Your task to perform on an android device: Search for flights from Buenos aires to Helsinki Image 0: 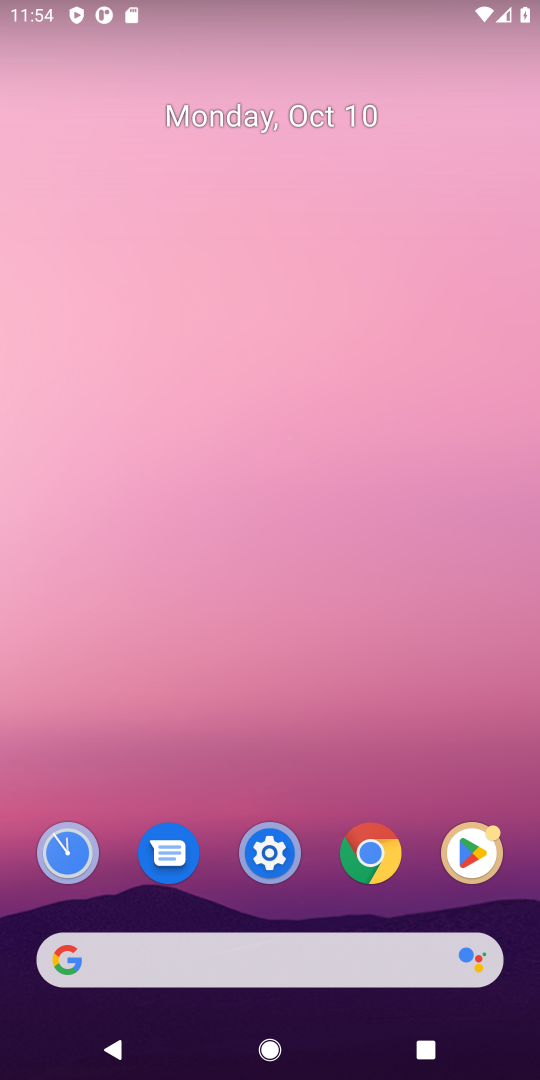
Step 0: click (362, 866)
Your task to perform on an android device: Search for flights from Buenos aires to Helsinki Image 1: 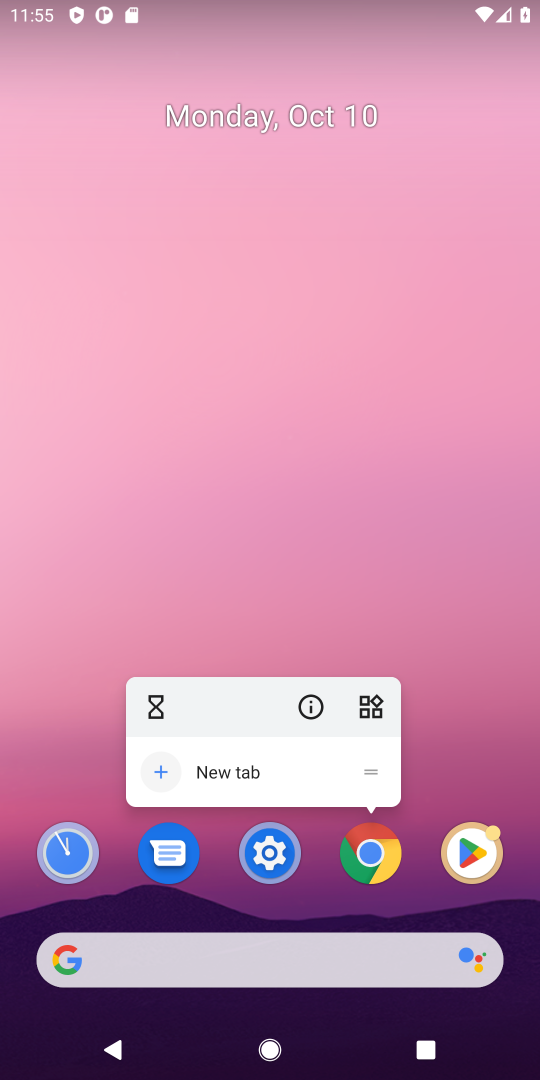
Step 1: click (355, 877)
Your task to perform on an android device: Search for flights from Buenos aires to Helsinki Image 2: 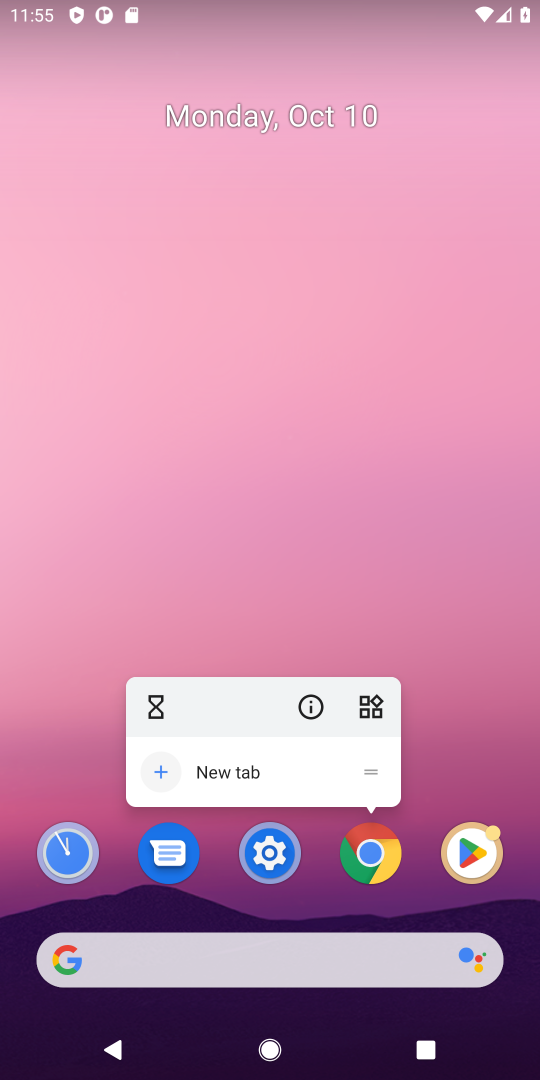
Step 2: click (417, 626)
Your task to perform on an android device: Search for flights from Buenos aires to Helsinki Image 3: 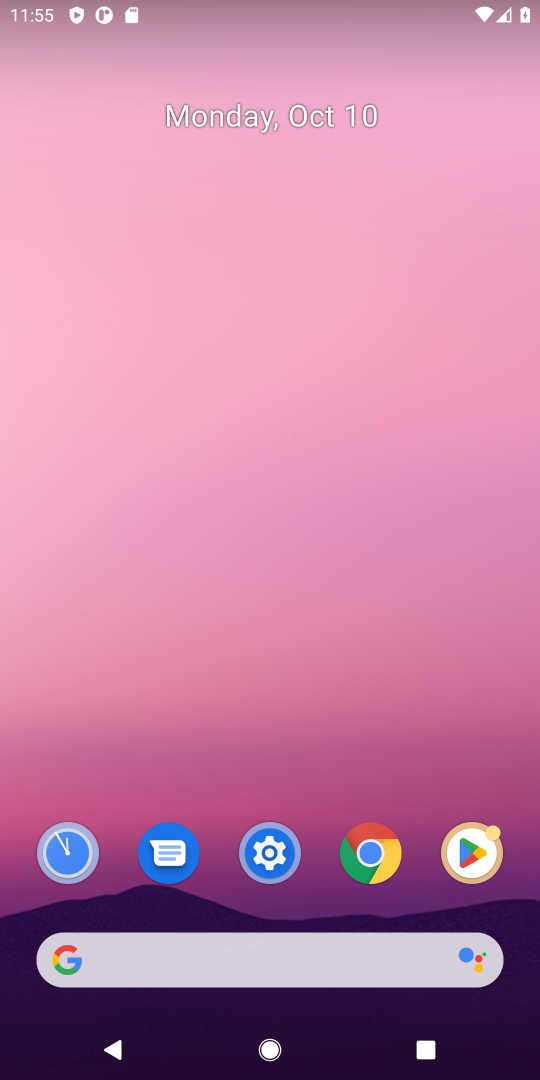
Step 3: click (382, 861)
Your task to perform on an android device: Search for flights from Buenos aires to Helsinki Image 4: 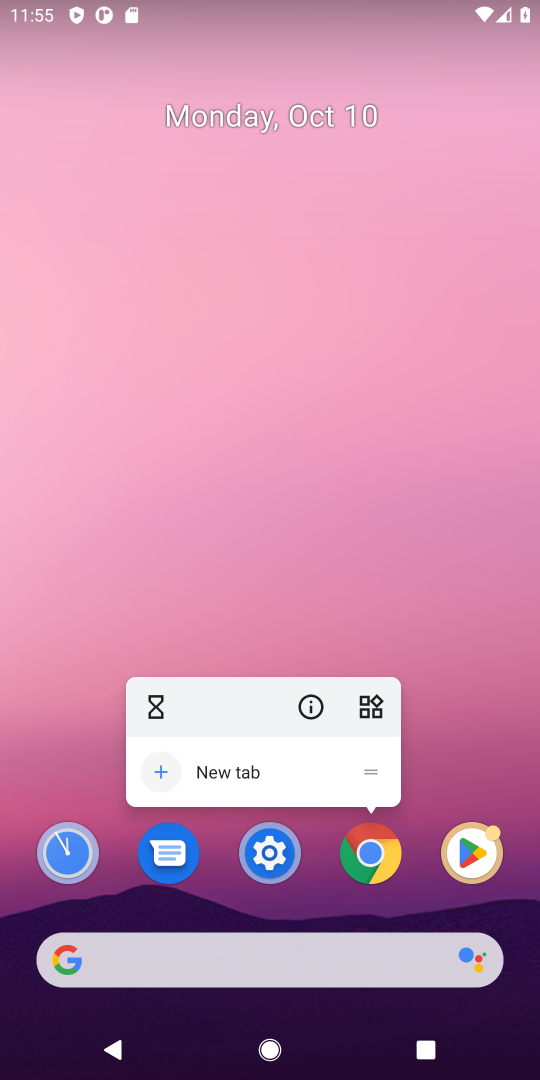
Step 4: drag from (205, 894) to (323, 13)
Your task to perform on an android device: Search for flights from Buenos aires to Helsinki Image 5: 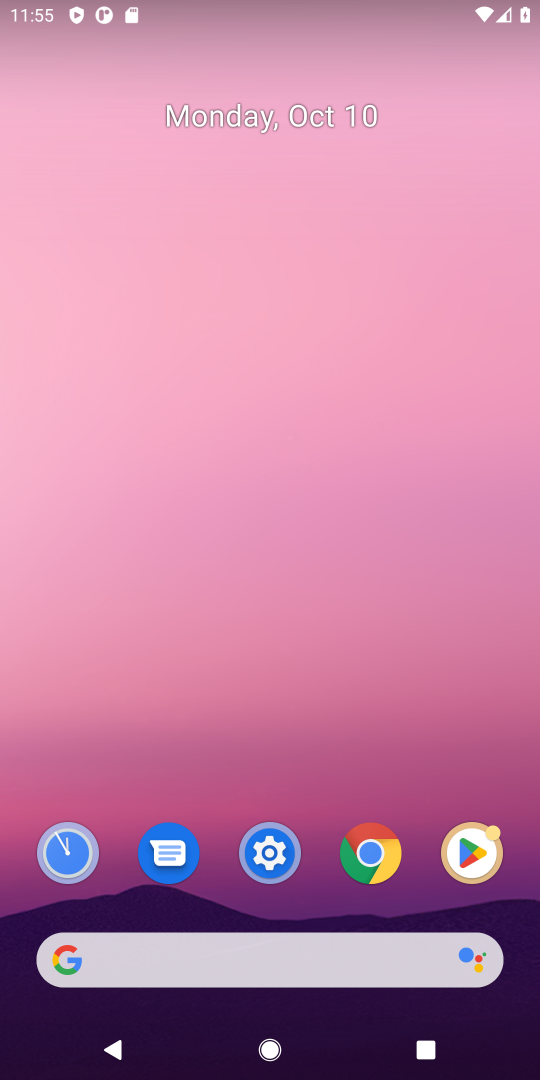
Step 5: drag from (265, 736) to (360, 83)
Your task to perform on an android device: Search for flights from Buenos aires to Helsinki Image 6: 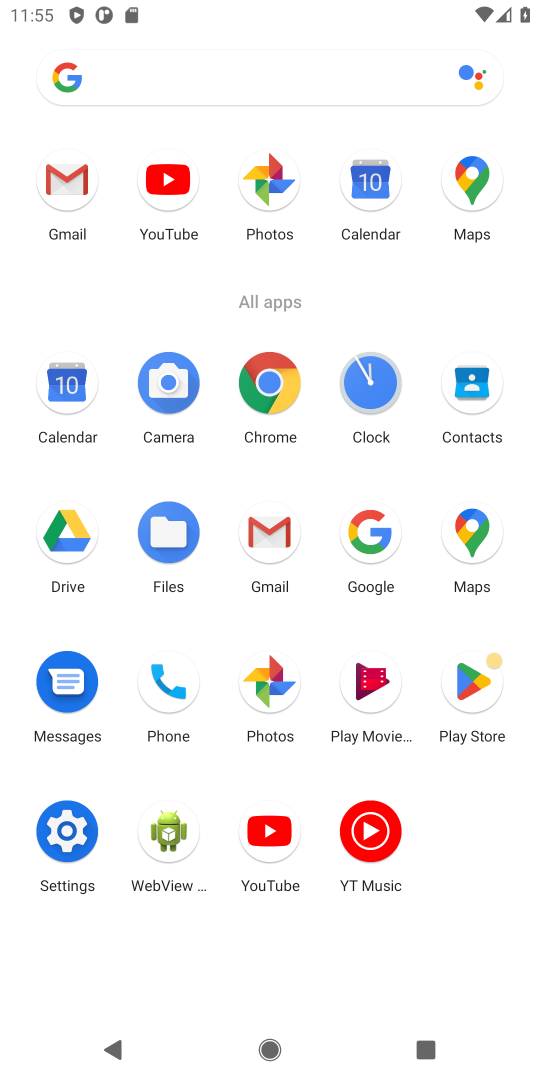
Step 6: click (266, 396)
Your task to perform on an android device: Search for flights from Buenos aires to Helsinki Image 7: 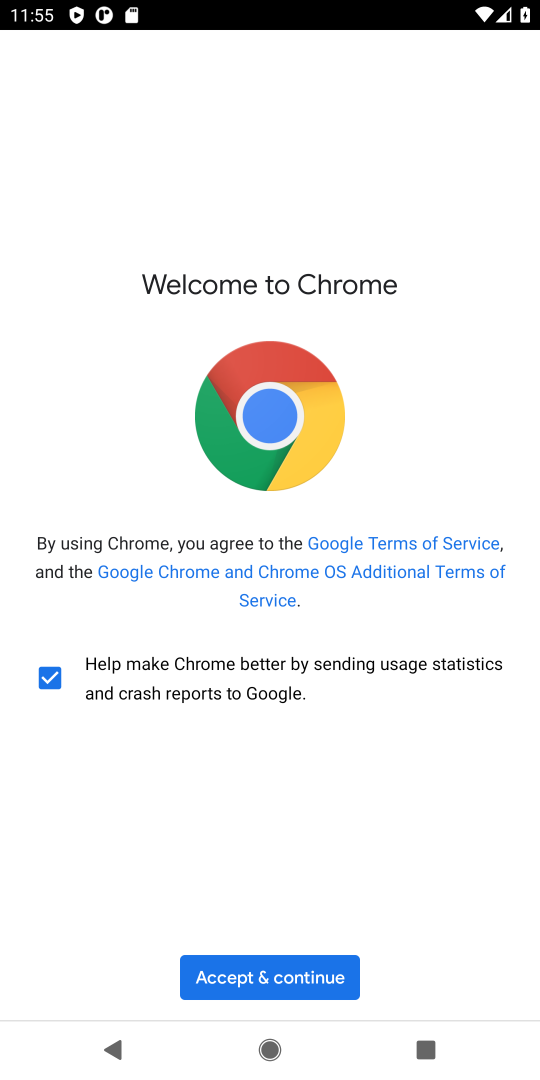
Step 7: click (231, 972)
Your task to perform on an android device: Search for flights from Buenos aires to Helsinki Image 8: 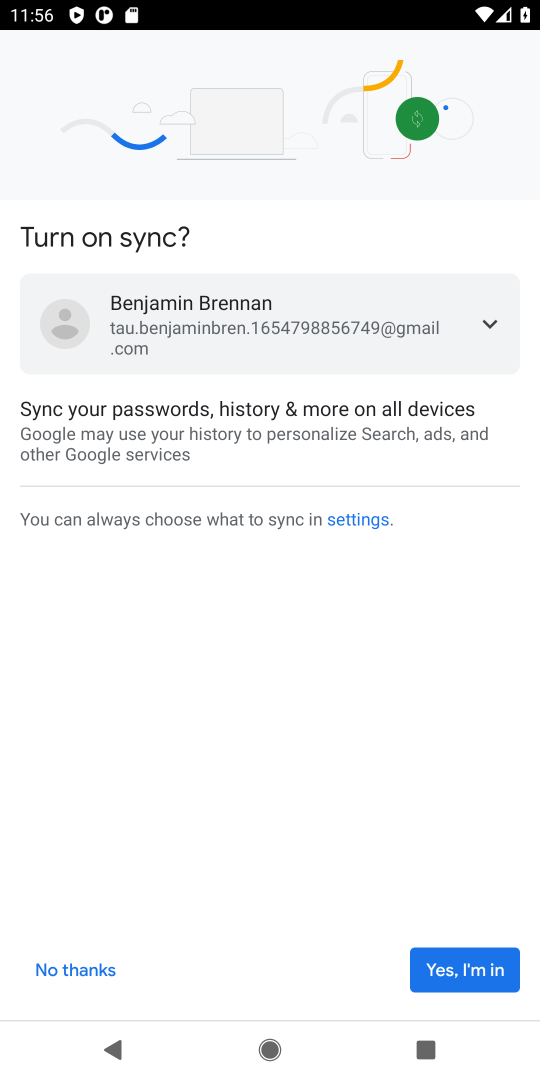
Step 8: click (467, 967)
Your task to perform on an android device: Search for flights from Buenos aires to Helsinki Image 9: 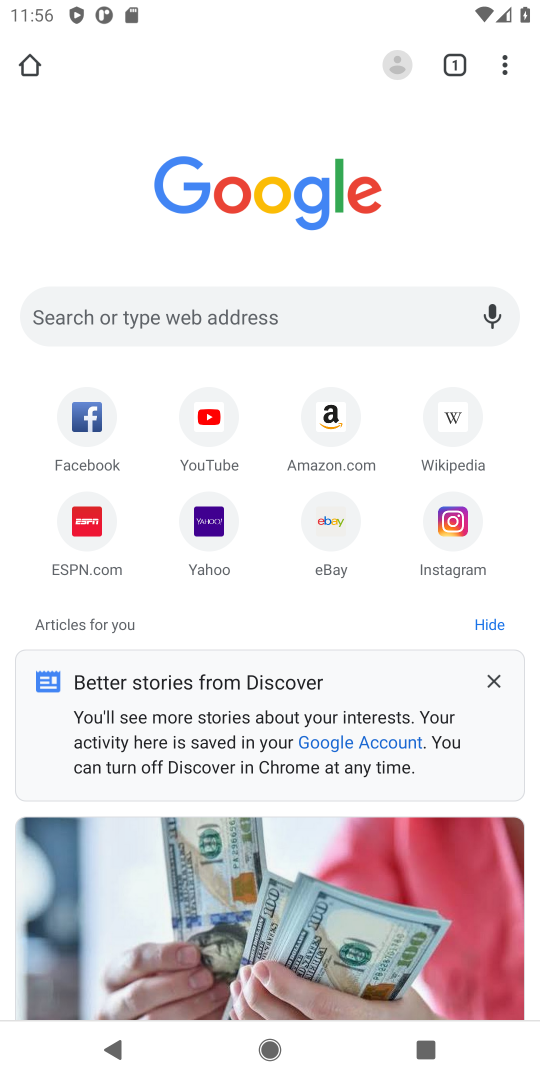
Step 9: click (267, 321)
Your task to perform on an android device: Search for flights from Buenos aires to Helsinki Image 10: 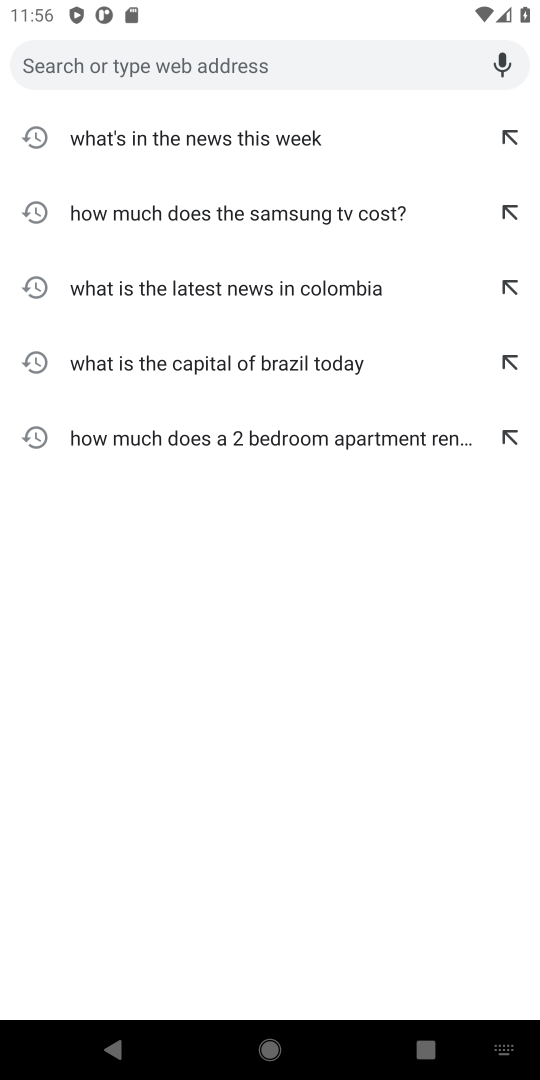
Step 10: type "flights from Buenos aires to Helsinki"
Your task to perform on an android device: Search for flights from Buenos aires to Helsinki Image 11: 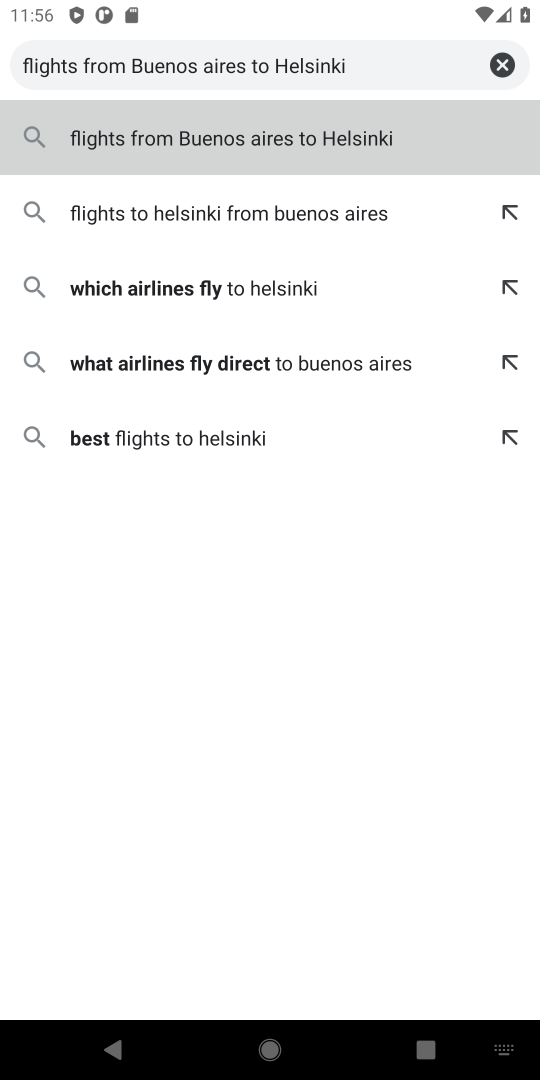
Step 11: type ""
Your task to perform on an android device: Search for flights from Buenos aires to Helsinki Image 12: 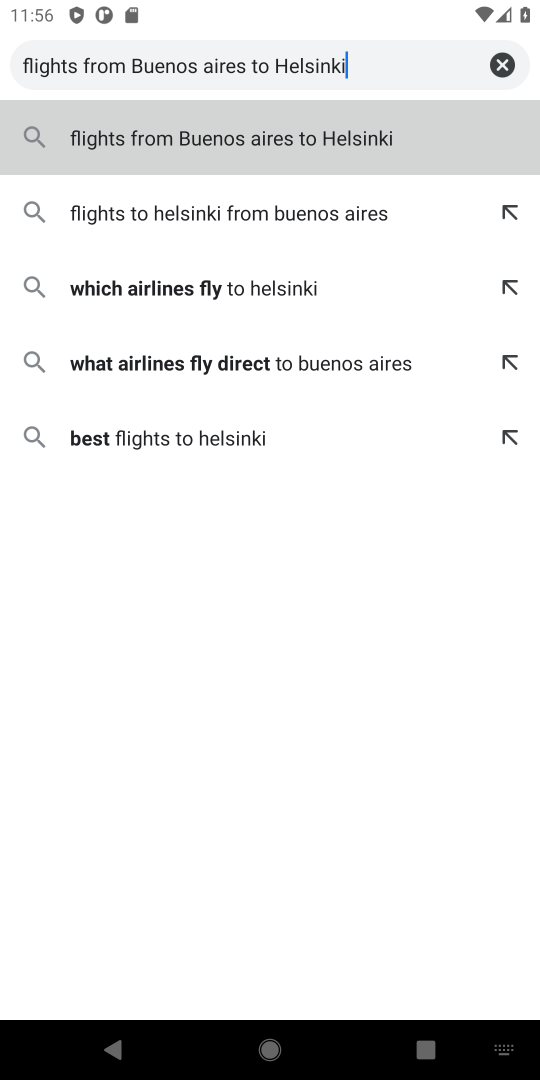
Step 12: press enter
Your task to perform on an android device: Search for flights from Buenos aires to Helsinki Image 13: 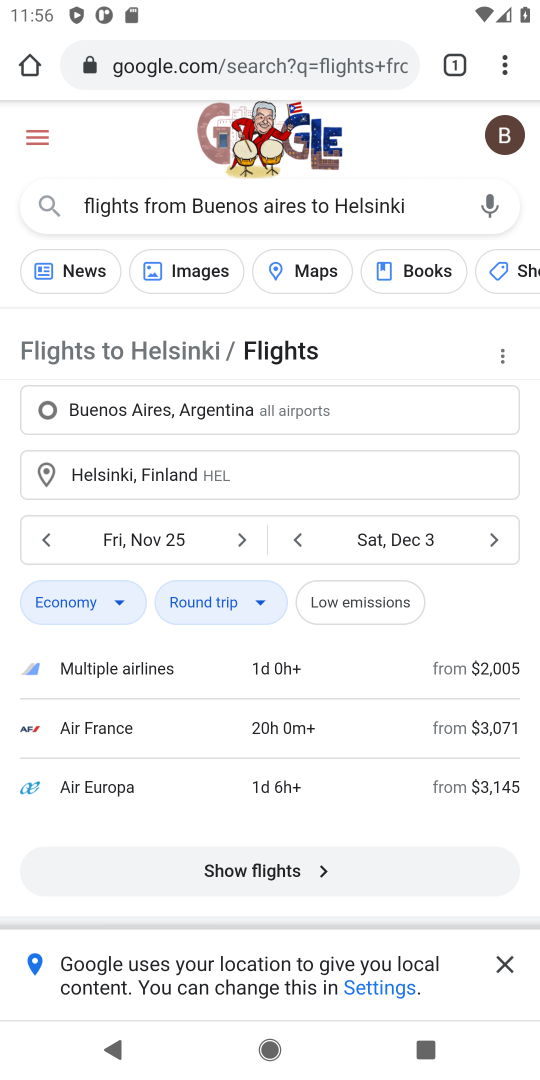
Step 13: click (181, 871)
Your task to perform on an android device: Search for flights from Buenos aires to Helsinki Image 14: 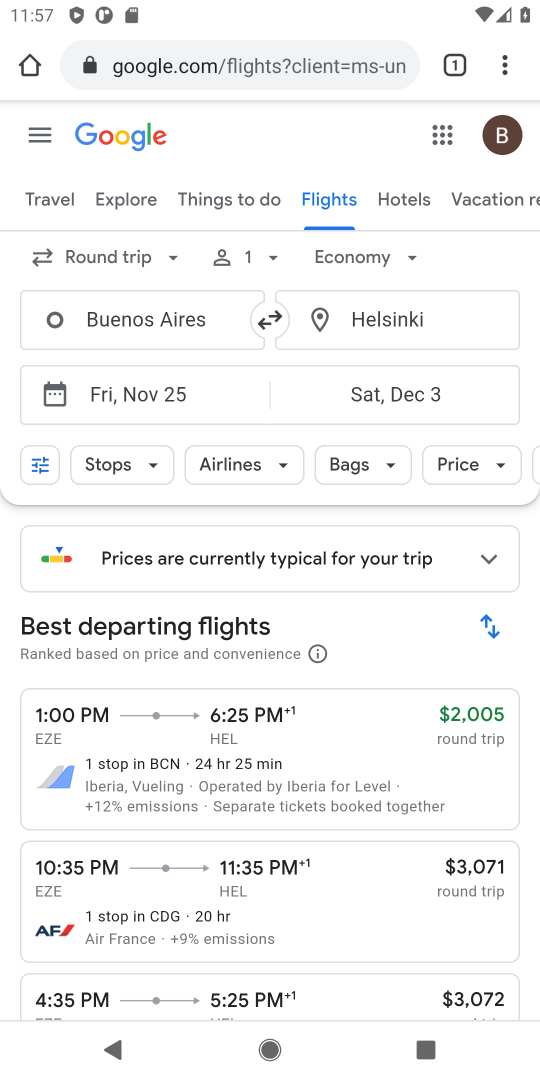
Step 14: drag from (230, 909) to (291, 144)
Your task to perform on an android device: Search for flights from Buenos aires to Helsinki Image 15: 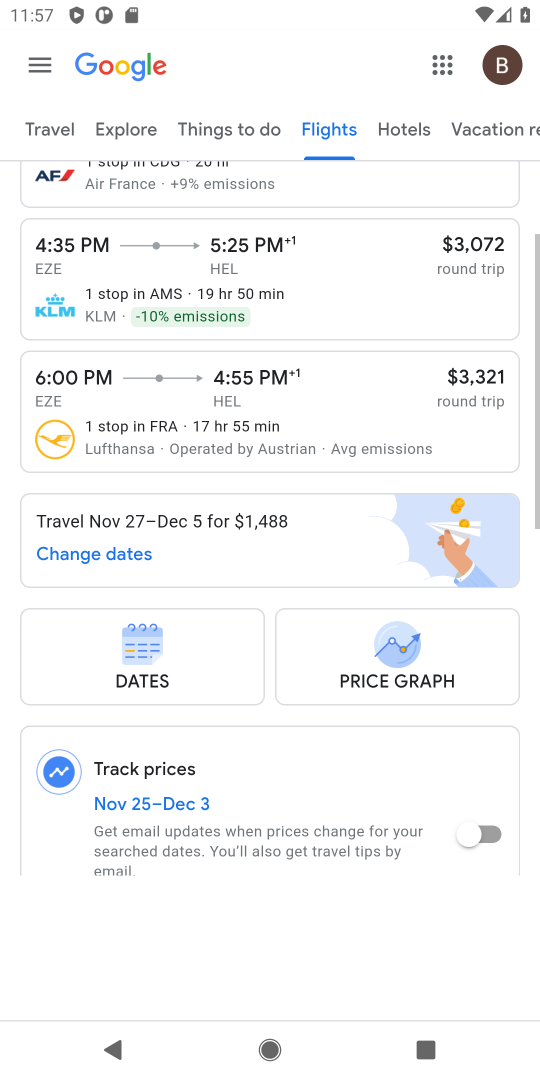
Step 15: drag from (392, 690) to (414, 182)
Your task to perform on an android device: Search for flights from Buenos aires to Helsinki Image 16: 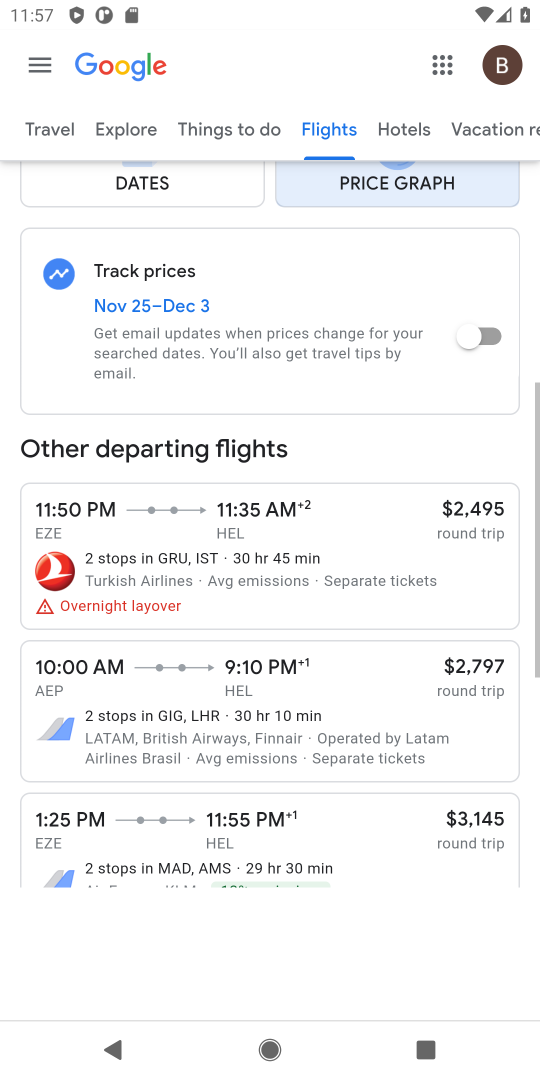
Step 16: drag from (355, 687) to (393, 206)
Your task to perform on an android device: Search for flights from Buenos aires to Helsinki Image 17: 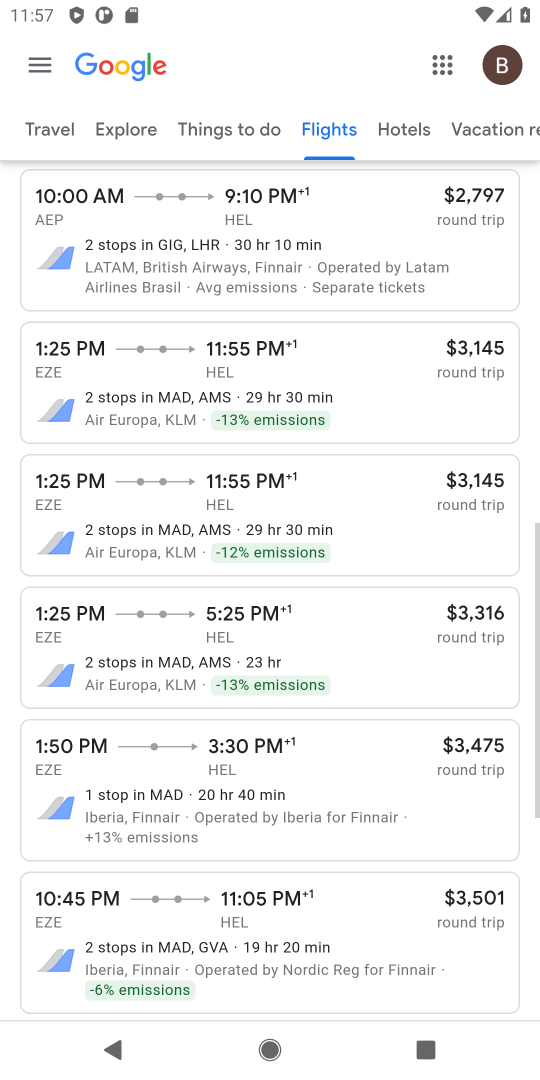
Step 17: drag from (325, 611) to (348, 247)
Your task to perform on an android device: Search for flights from Buenos aires to Helsinki Image 18: 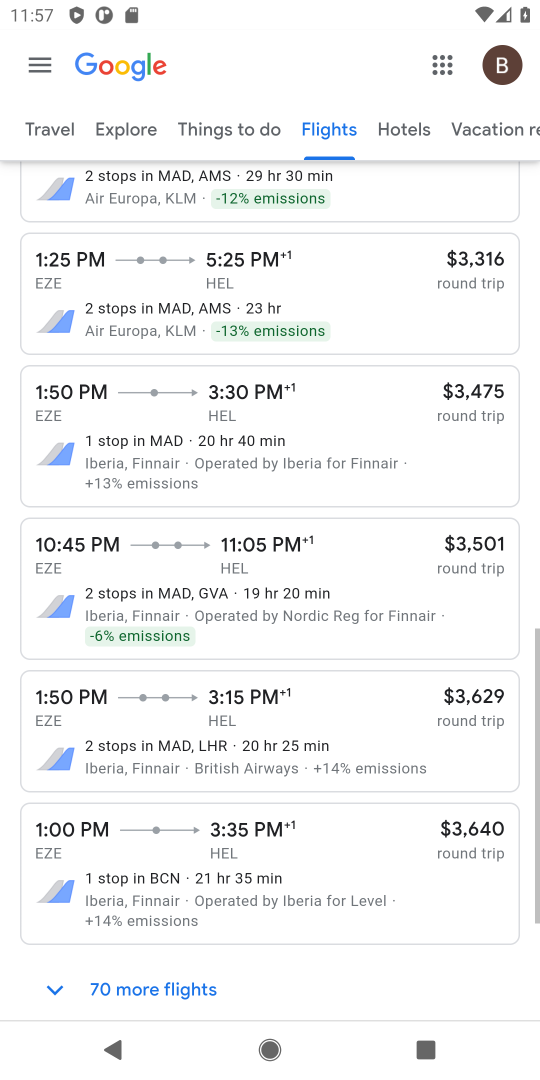
Step 18: drag from (277, 599) to (307, 314)
Your task to perform on an android device: Search for flights from Buenos aires to Helsinki Image 19: 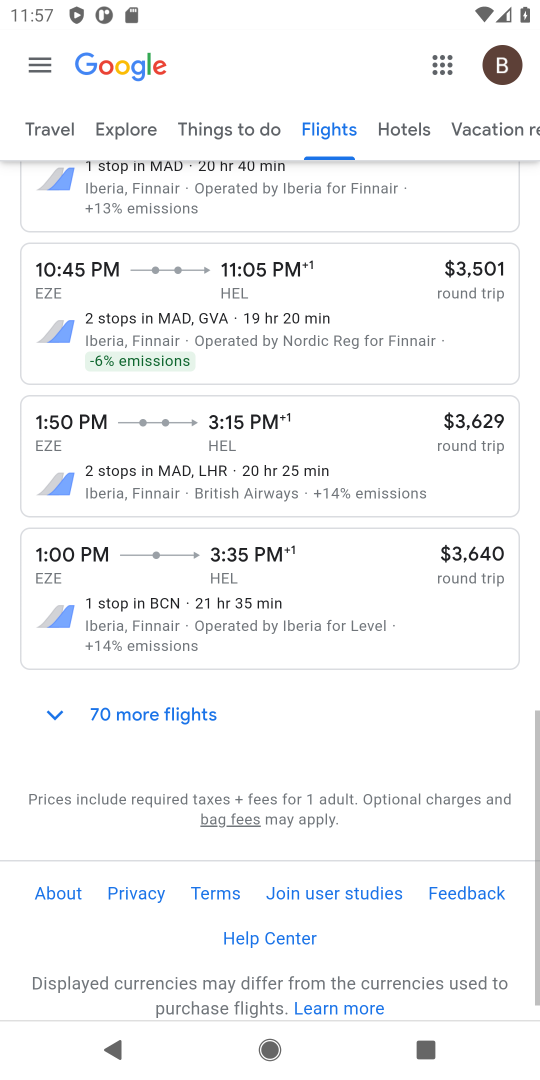
Step 19: drag from (238, 720) to (245, 348)
Your task to perform on an android device: Search for flights from Buenos aires to Helsinki Image 20: 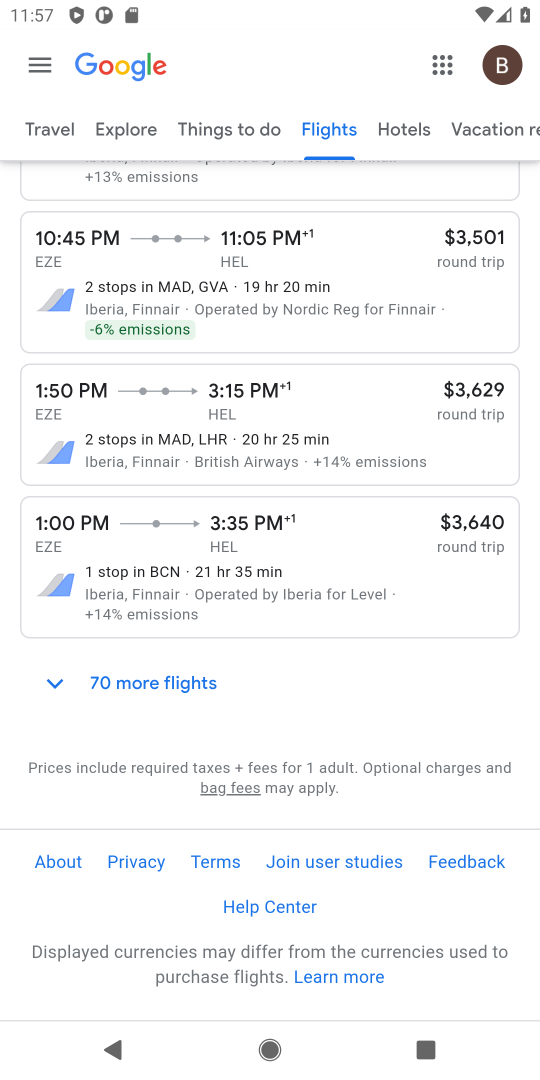
Step 20: click (233, 548)
Your task to perform on an android device: Search for flights from Buenos aires to Helsinki Image 21: 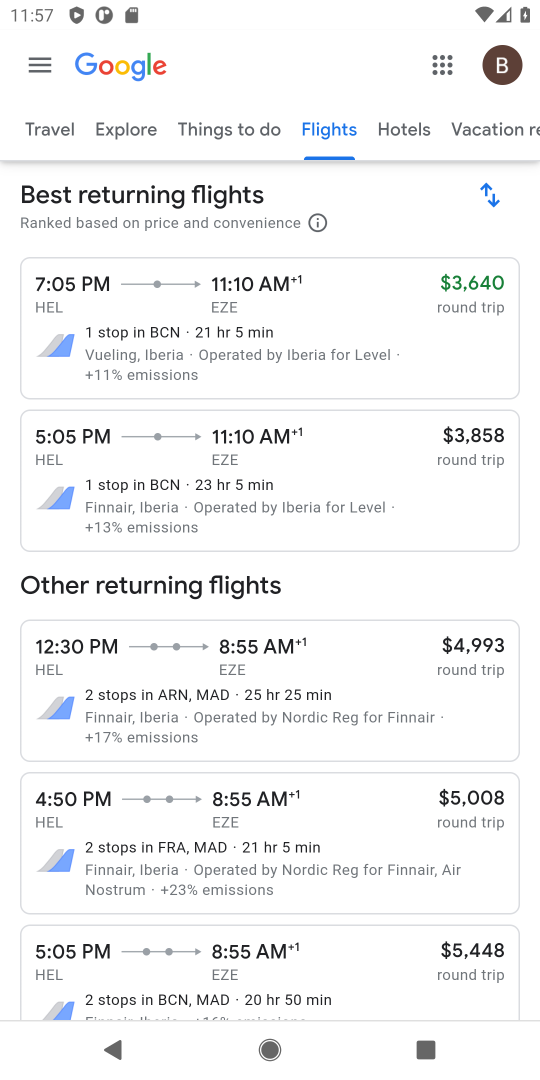
Step 21: click (260, 688)
Your task to perform on an android device: Search for flights from Buenos aires to Helsinki Image 22: 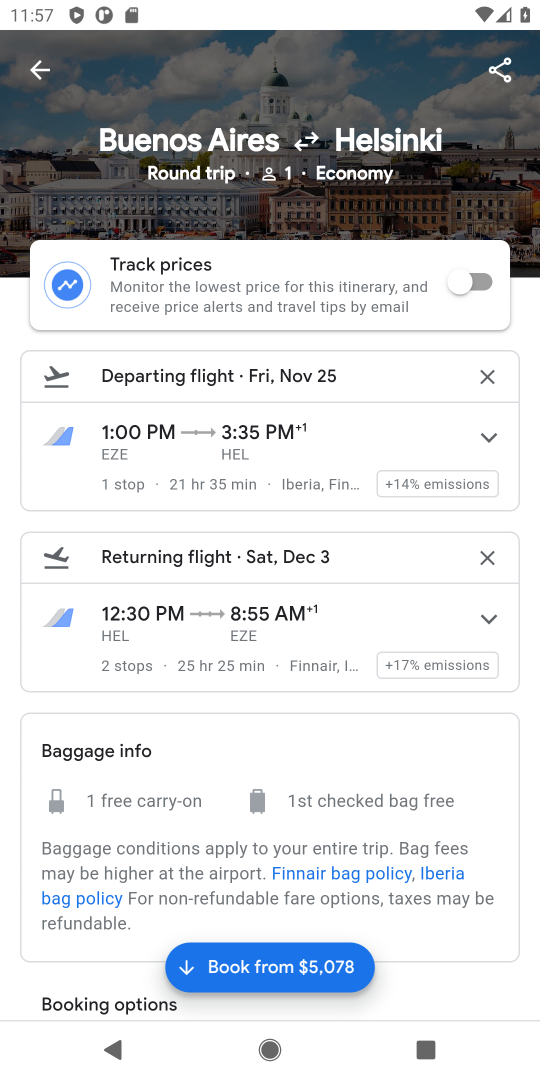
Step 22: task complete